Your task to perform on an android device: find which apps use the phone's location Image 0: 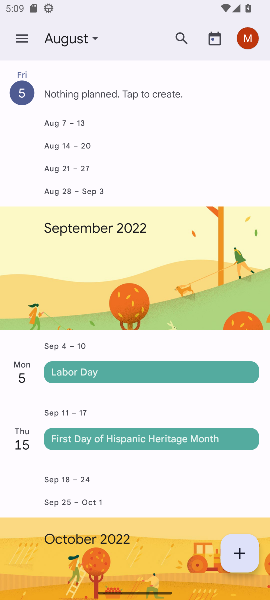
Step 0: press home button
Your task to perform on an android device: find which apps use the phone's location Image 1: 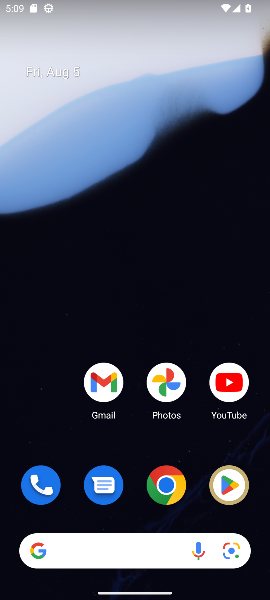
Step 1: drag from (122, 432) to (213, 29)
Your task to perform on an android device: find which apps use the phone's location Image 2: 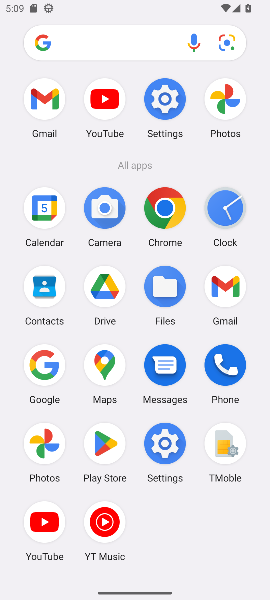
Step 2: click (170, 106)
Your task to perform on an android device: find which apps use the phone's location Image 3: 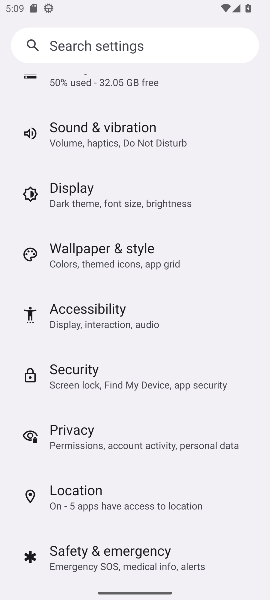
Step 3: click (67, 492)
Your task to perform on an android device: find which apps use the phone's location Image 4: 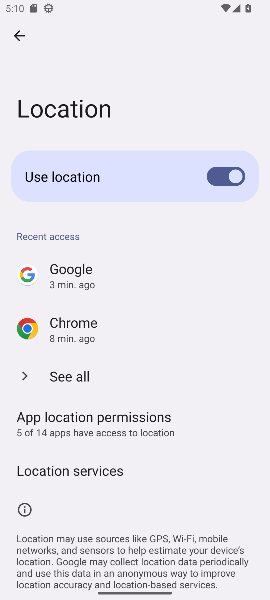
Step 4: click (83, 423)
Your task to perform on an android device: find which apps use the phone's location Image 5: 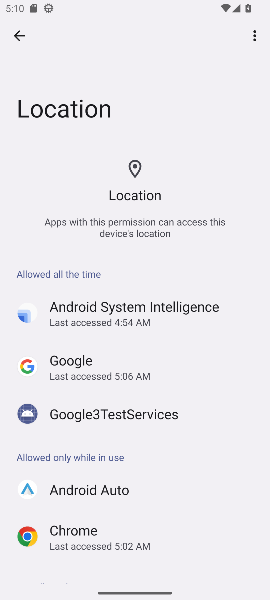
Step 5: task complete